Your task to perform on an android device: Open my contact list Image 0: 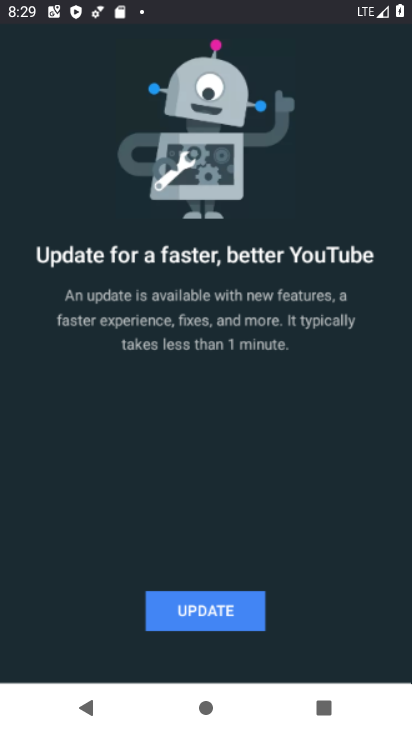
Step 0: drag from (222, 640) to (270, 98)
Your task to perform on an android device: Open my contact list Image 1: 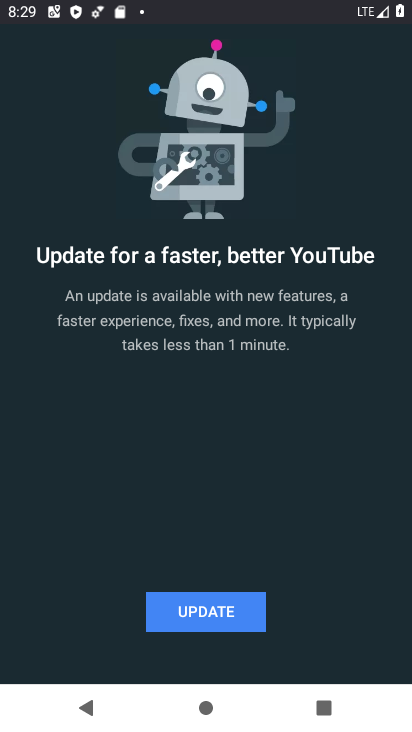
Step 1: press home button
Your task to perform on an android device: Open my contact list Image 2: 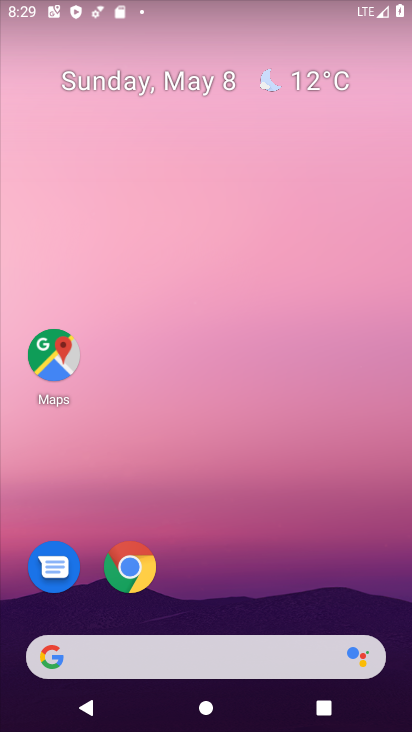
Step 2: drag from (214, 646) to (195, 7)
Your task to perform on an android device: Open my contact list Image 3: 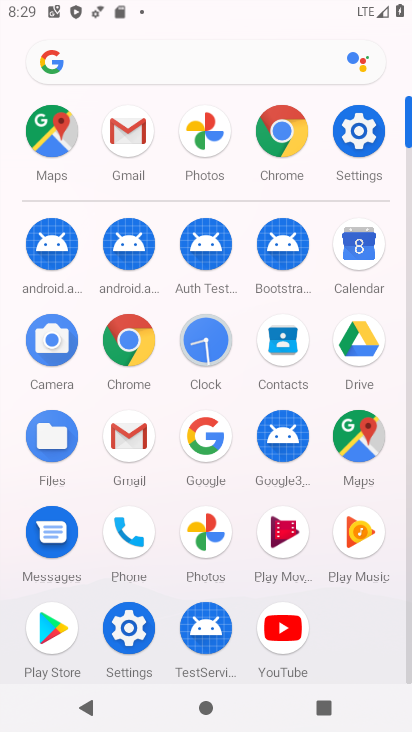
Step 3: click (299, 352)
Your task to perform on an android device: Open my contact list Image 4: 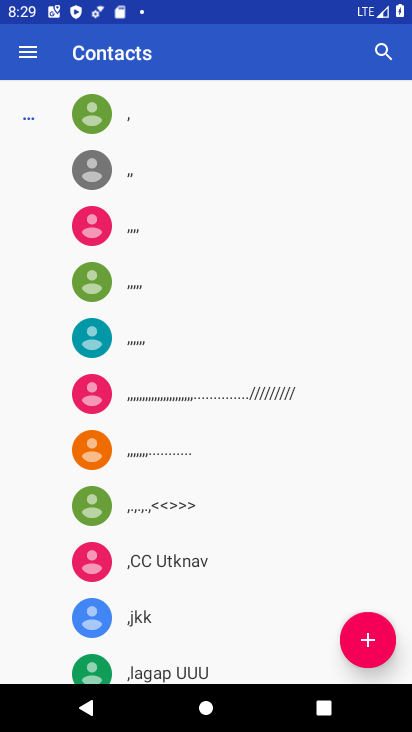
Step 4: task complete